Your task to perform on an android device: Show me the alarms in the clock app Image 0: 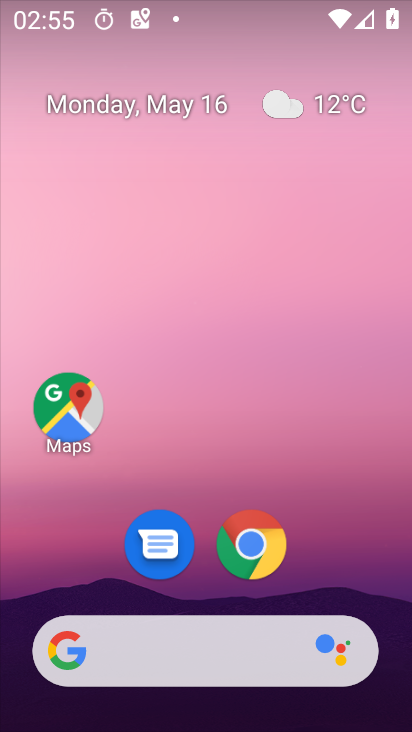
Step 0: drag from (241, 723) to (272, 280)
Your task to perform on an android device: Show me the alarms in the clock app Image 1: 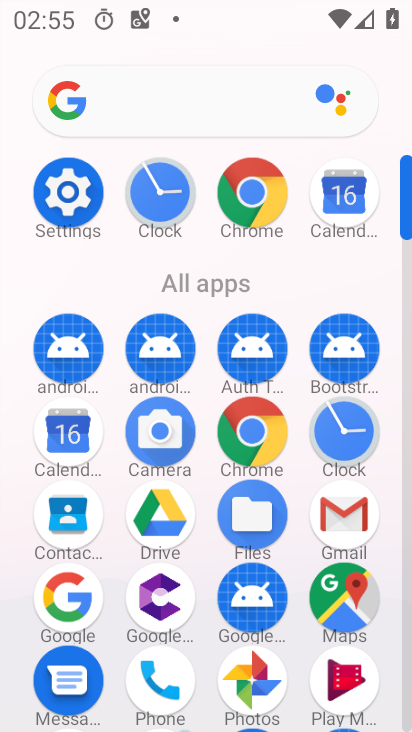
Step 1: click (357, 434)
Your task to perform on an android device: Show me the alarms in the clock app Image 2: 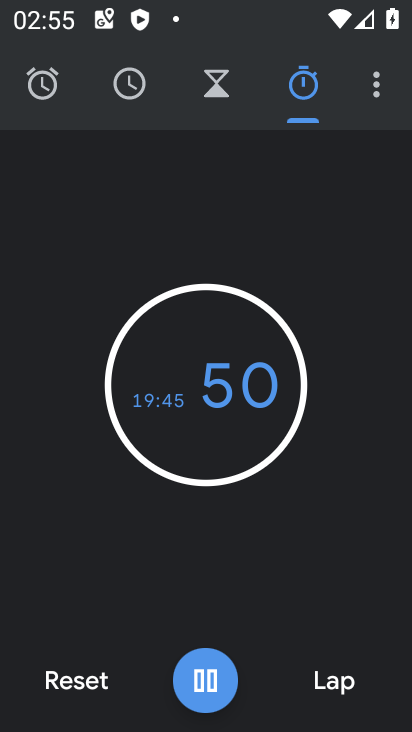
Step 2: click (46, 82)
Your task to perform on an android device: Show me the alarms in the clock app Image 3: 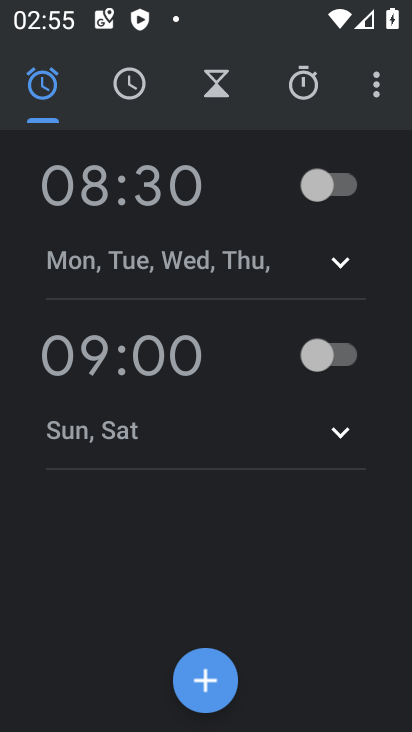
Step 3: task complete